Your task to perform on an android device: Set the phone to "Do not disturb". Image 0: 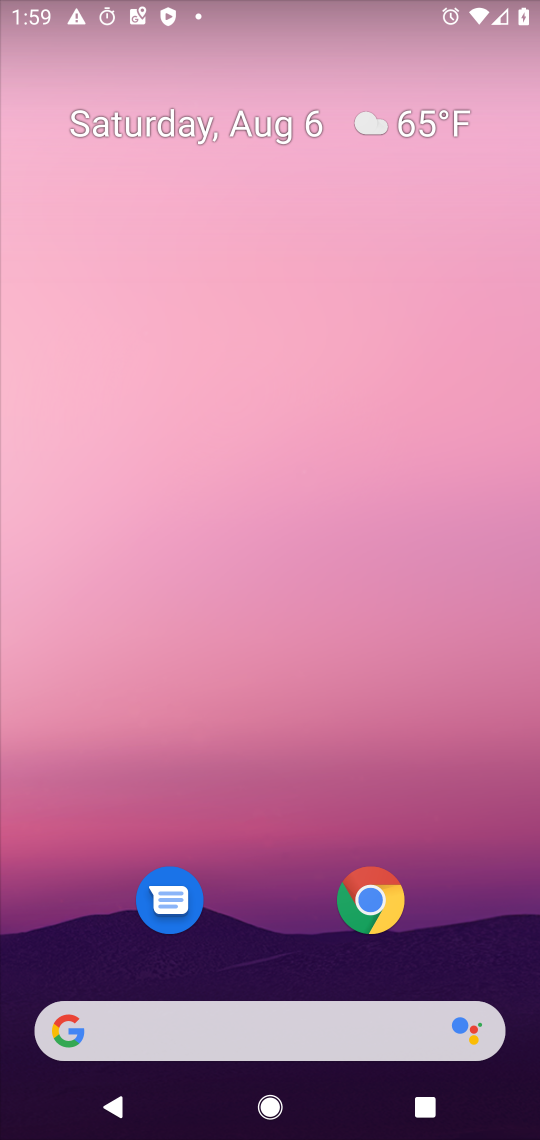
Step 0: drag from (272, 928) to (226, 59)
Your task to perform on an android device: Set the phone to "Do not disturb". Image 1: 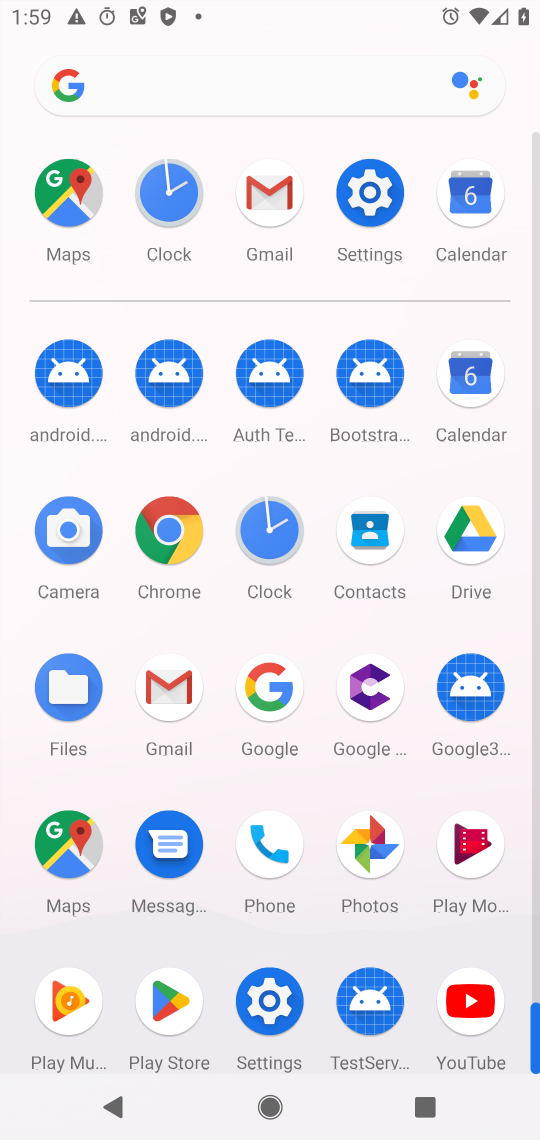
Step 1: click (372, 207)
Your task to perform on an android device: Set the phone to "Do not disturb". Image 2: 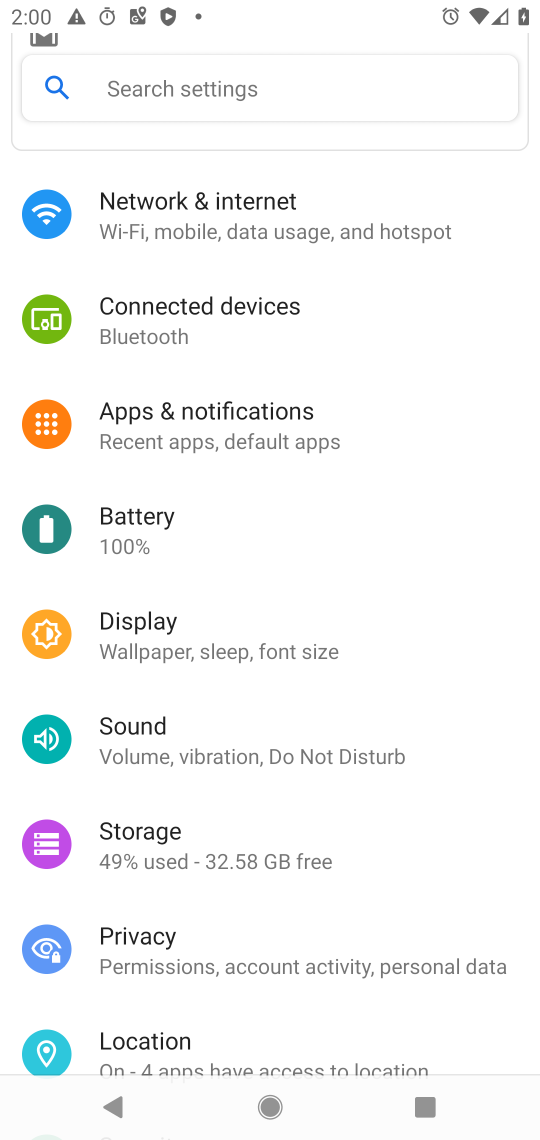
Step 2: click (195, 755)
Your task to perform on an android device: Set the phone to "Do not disturb". Image 3: 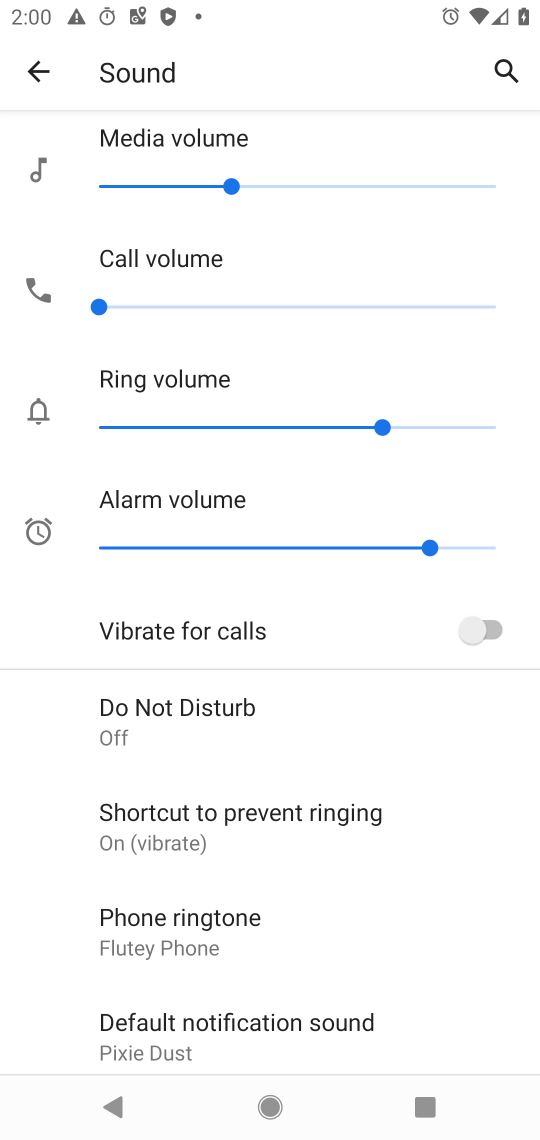
Step 3: click (125, 705)
Your task to perform on an android device: Set the phone to "Do not disturb". Image 4: 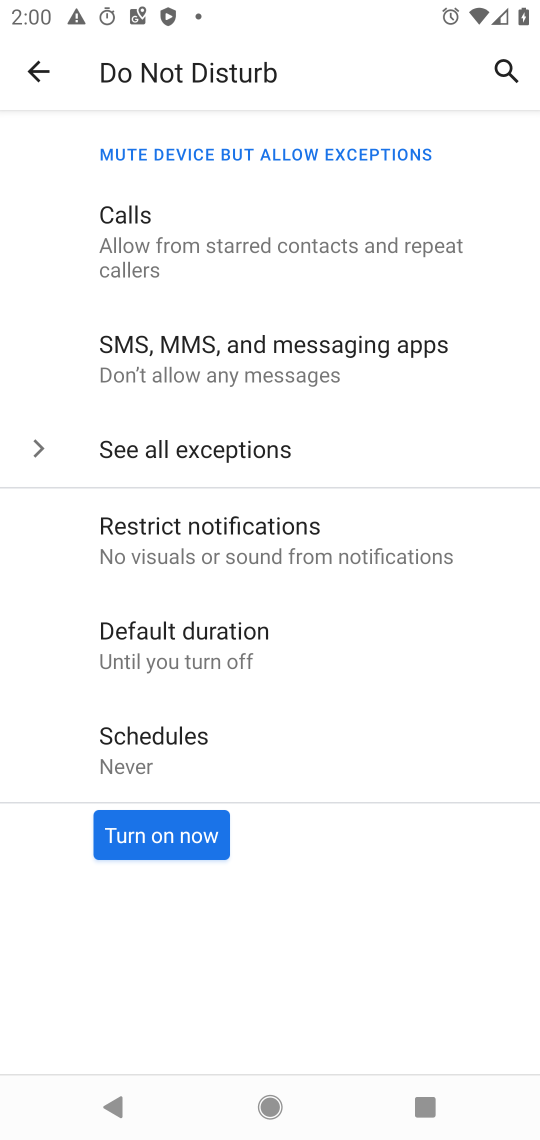
Step 4: click (139, 839)
Your task to perform on an android device: Set the phone to "Do not disturb". Image 5: 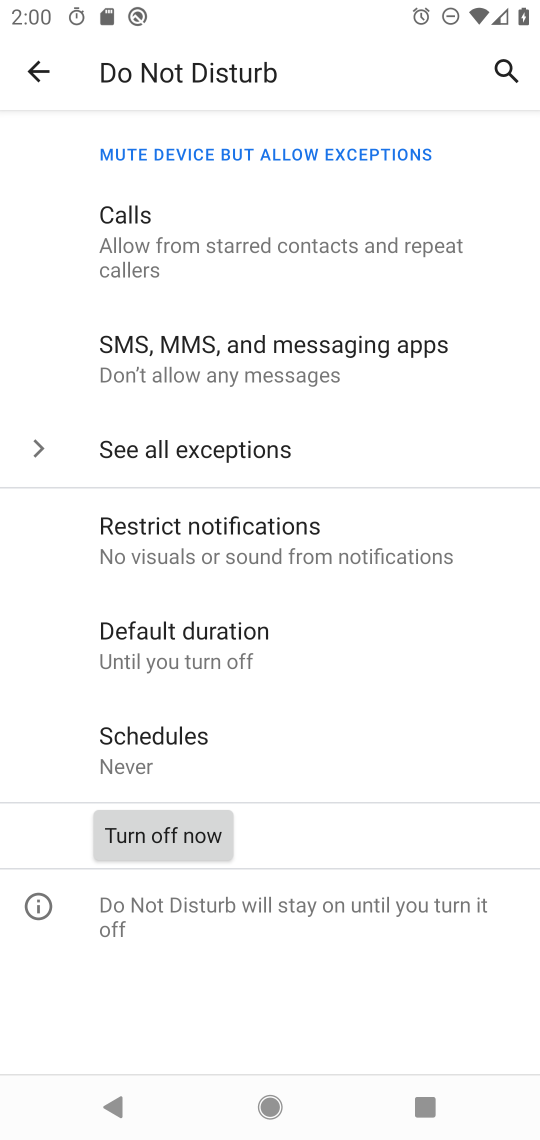
Step 5: task complete